Your task to perform on an android device: Open ESPN.com Image 0: 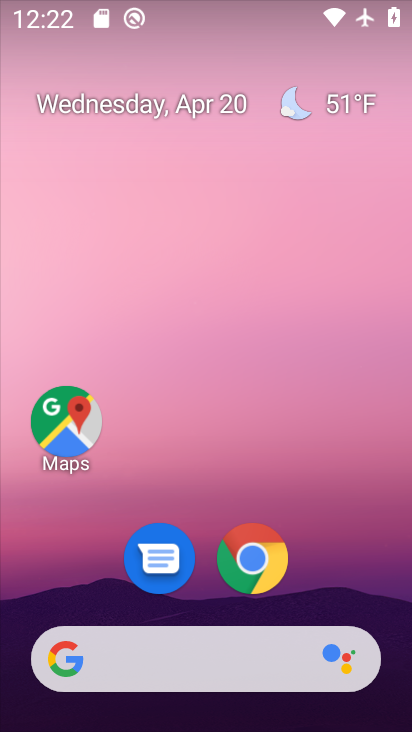
Step 0: click (259, 559)
Your task to perform on an android device: Open ESPN.com Image 1: 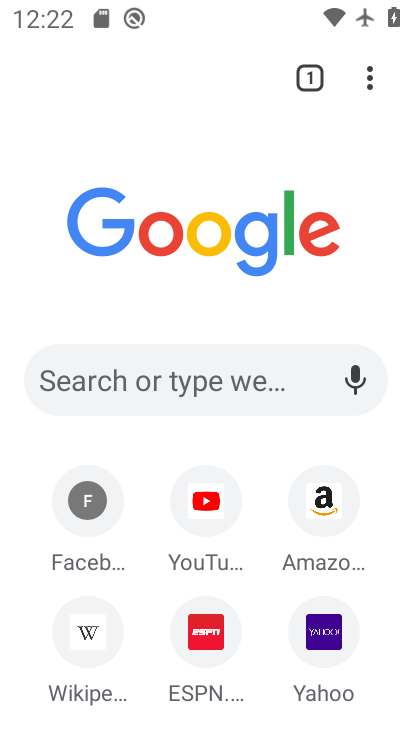
Step 1: click (126, 378)
Your task to perform on an android device: Open ESPN.com Image 2: 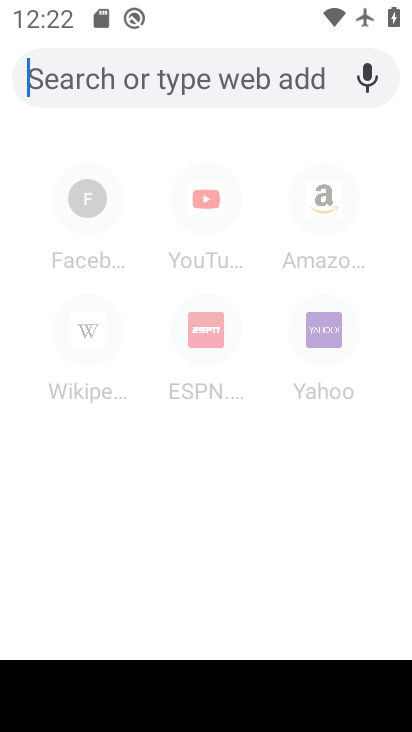
Step 2: type "espn.com"
Your task to perform on an android device: Open ESPN.com Image 3: 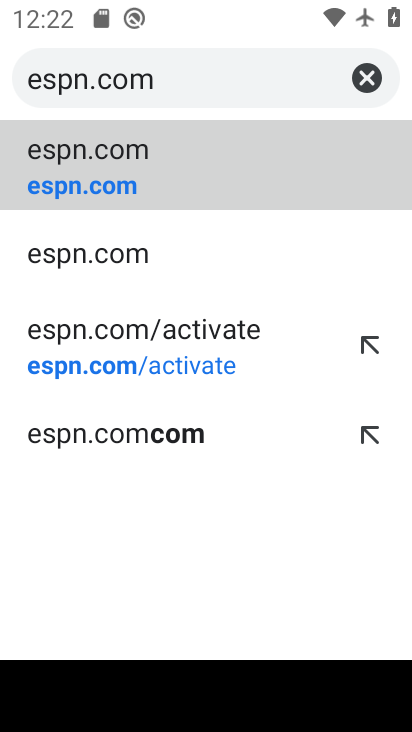
Step 3: click (68, 167)
Your task to perform on an android device: Open ESPN.com Image 4: 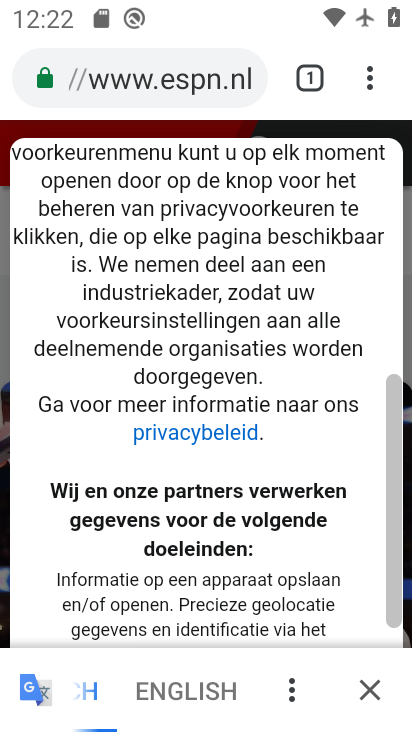
Step 4: task complete